Your task to perform on an android device: Clear all items from cart on ebay. Search for "duracell triple a" on ebay, select the first entry, and add it to the cart. Image 0: 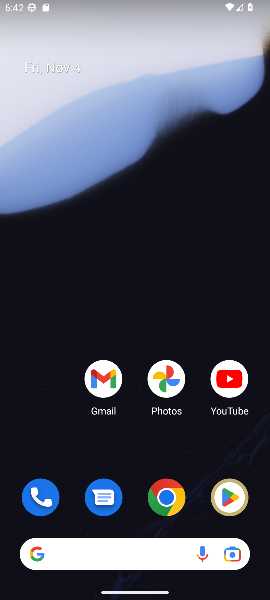
Step 0: click (171, 501)
Your task to perform on an android device: Clear all items from cart on ebay. Search for "duracell triple a" on ebay, select the first entry, and add it to the cart. Image 1: 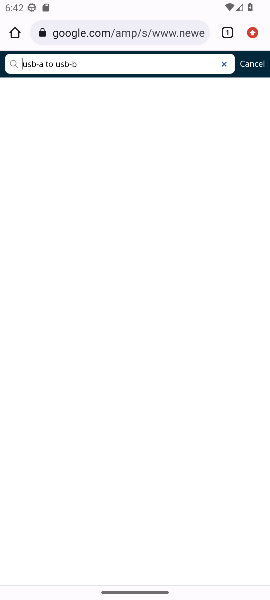
Step 1: click (109, 35)
Your task to perform on an android device: Clear all items from cart on ebay. Search for "duracell triple a" on ebay, select the first entry, and add it to the cart. Image 2: 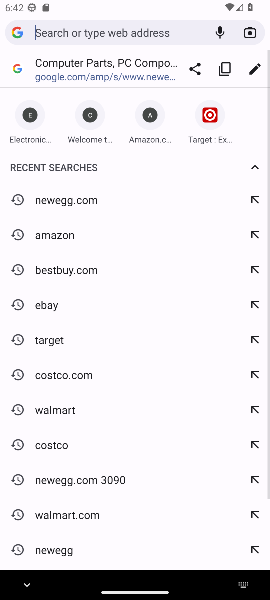
Step 2: click (44, 310)
Your task to perform on an android device: Clear all items from cart on ebay. Search for "duracell triple a" on ebay, select the first entry, and add it to the cart. Image 3: 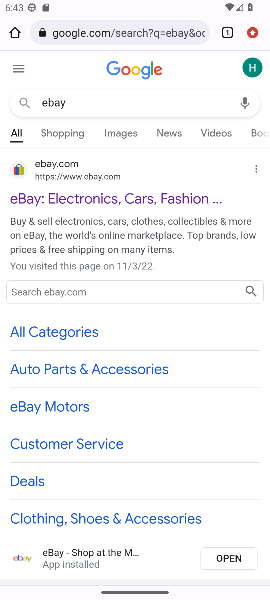
Step 3: click (71, 208)
Your task to perform on an android device: Clear all items from cart on ebay. Search for "duracell triple a" on ebay, select the first entry, and add it to the cart. Image 4: 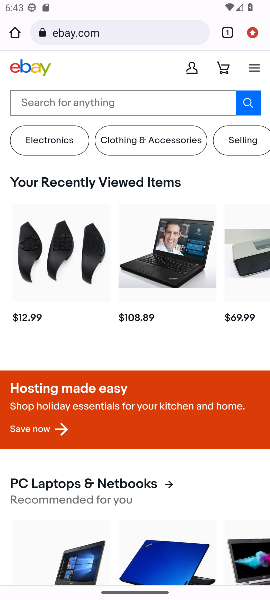
Step 4: click (224, 71)
Your task to perform on an android device: Clear all items from cart on ebay. Search for "duracell triple a" on ebay, select the first entry, and add it to the cart. Image 5: 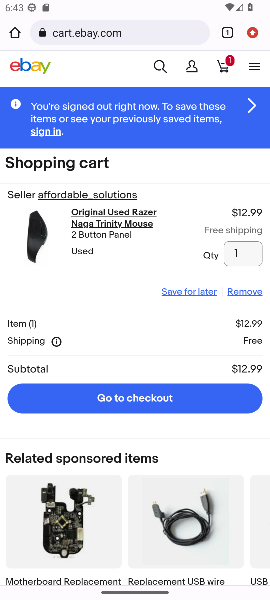
Step 5: click (242, 290)
Your task to perform on an android device: Clear all items from cart on ebay. Search for "duracell triple a" on ebay, select the first entry, and add it to the cart. Image 6: 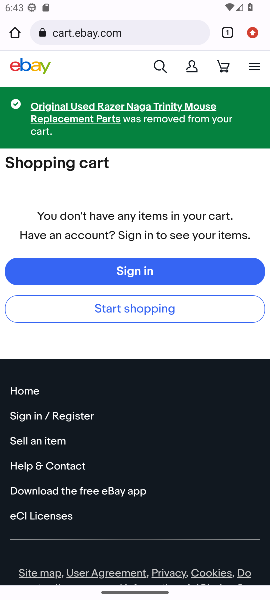
Step 6: click (159, 59)
Your task to perform on an android device: Clear all items from cart on ebay. Search for "duracell triple a" on ebay, select the first entry, and add it to the cart. Image 7: 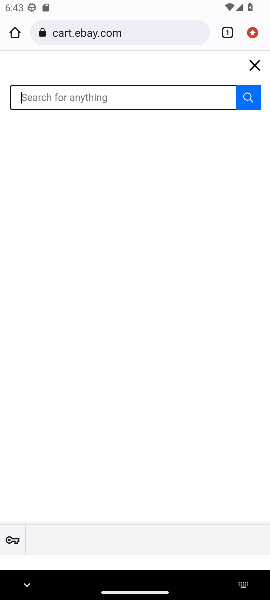
Step 7: type "duracell triple a"
Your task to perform on an android device: Clear all items from cart on ebay. Search for "duracell triple a" on ebay, select the first entry, and add it to the cart. Image 8: 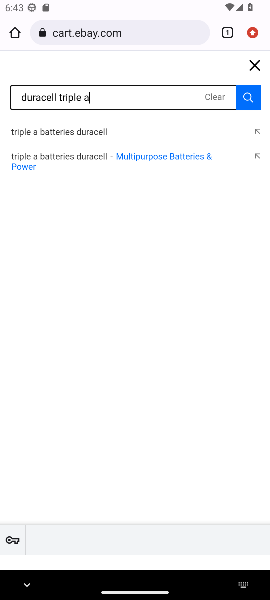
Step 8: click (251, 96)
Your task to perform on an android device: Clear all items from cart on ebay. Search for "duracell triple a" on ebay, select the first entry, and add it to the cart. Image 9: 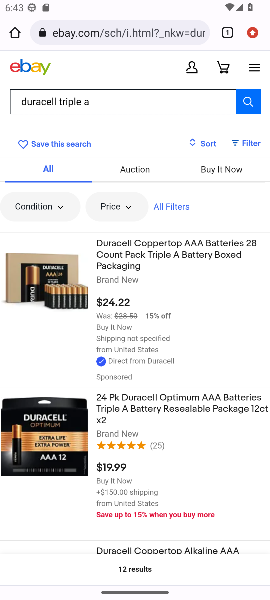
Step 9: click (136, 285)
Your task to perform on an android device: Clear all items from cart on ebay. Search for "duracell triple a" on ebay, select the first entry, and add it to the cart. Image 10: 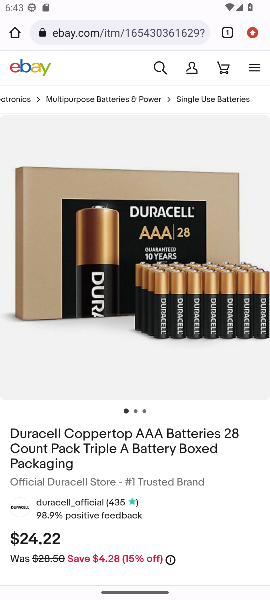
Step 10: drag from (132, 484) to (126, 215)
Your task to perform on an android device: Clear all items from cart on ebay. Search for "duracell triple a" on ebay, select the first entry, and add it to the cart. Image 11: 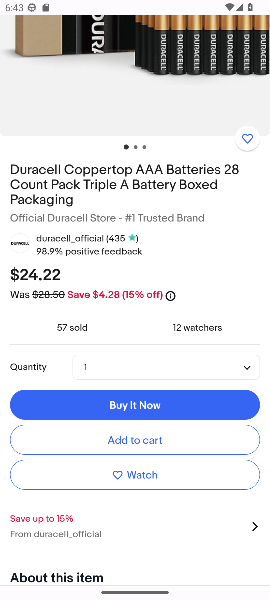
Step 11: click (113, 447)
Your task to perform on an android device: Clear all items from cart on ebay. Search for "duracell triple a" on ebay, select the first entry, and add it to the cart. Image 12: 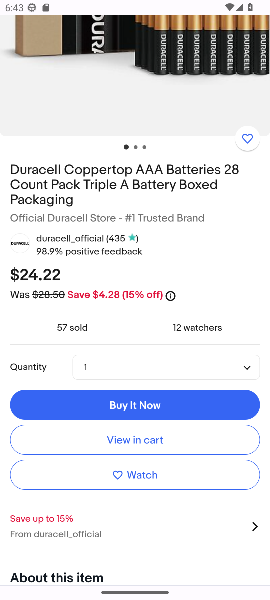
Step 12: task complete